Your task to perform on an android device: move an email to a new category in the gmail app Image 0: 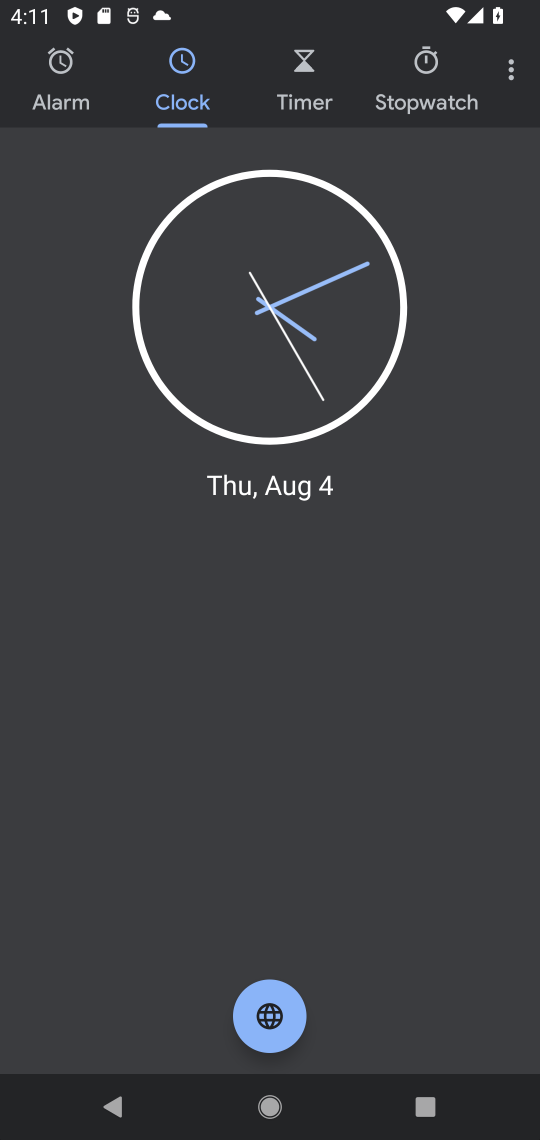
Step 0: press home button
Your task to perform on an android device: move an email to a new category in the gmail app Image 1: 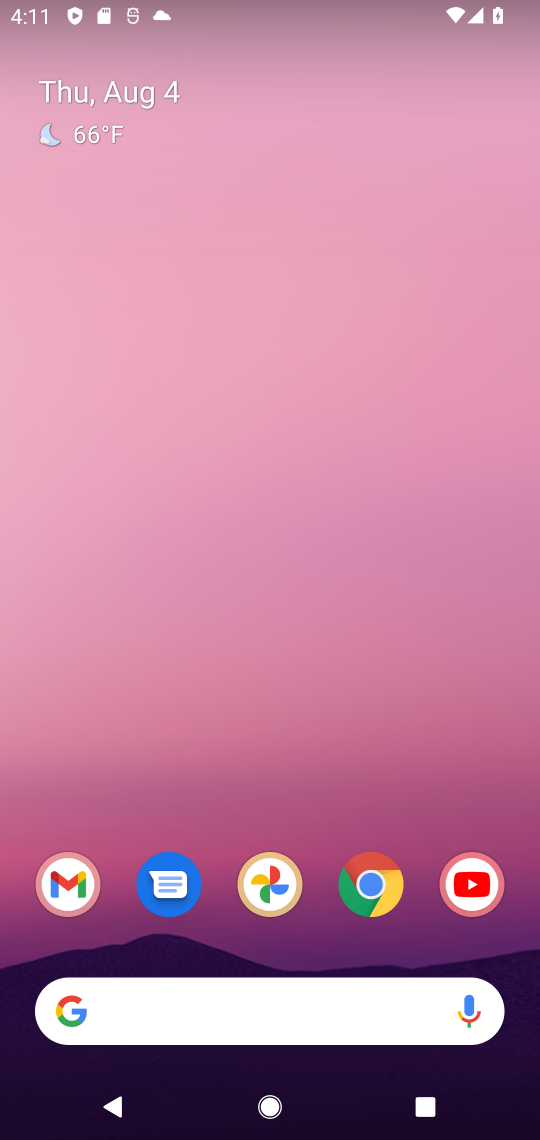
Step 1: drag from (291, 916) to (315, 149)
Your task to perform on an android device: move an email to a new category in the gmail app Image 2: 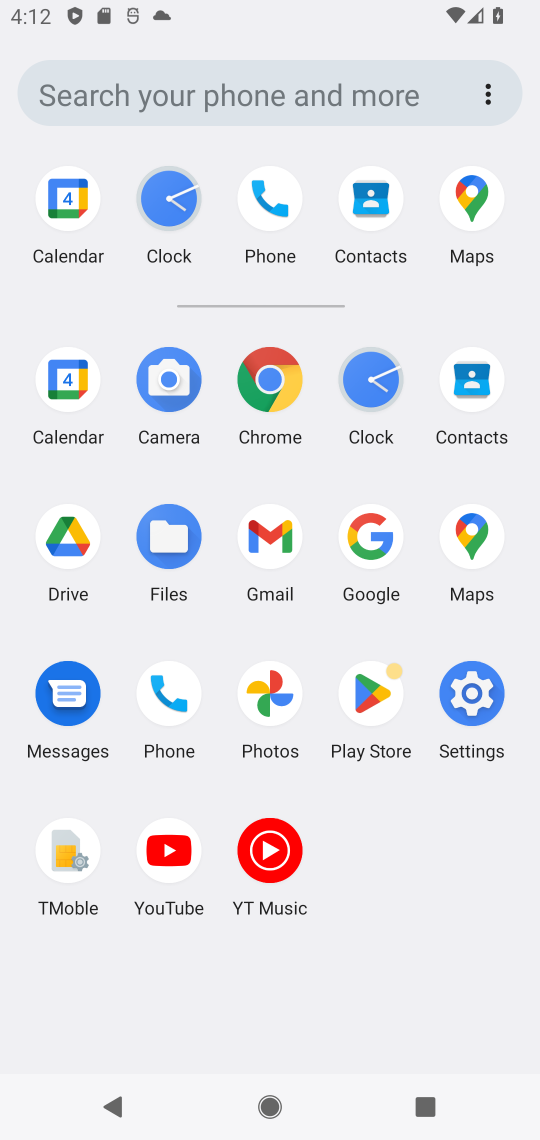
Step 2: click (267, 523)
Your task to perform on an android device: move an email to a new category in the gmail app Image 3: 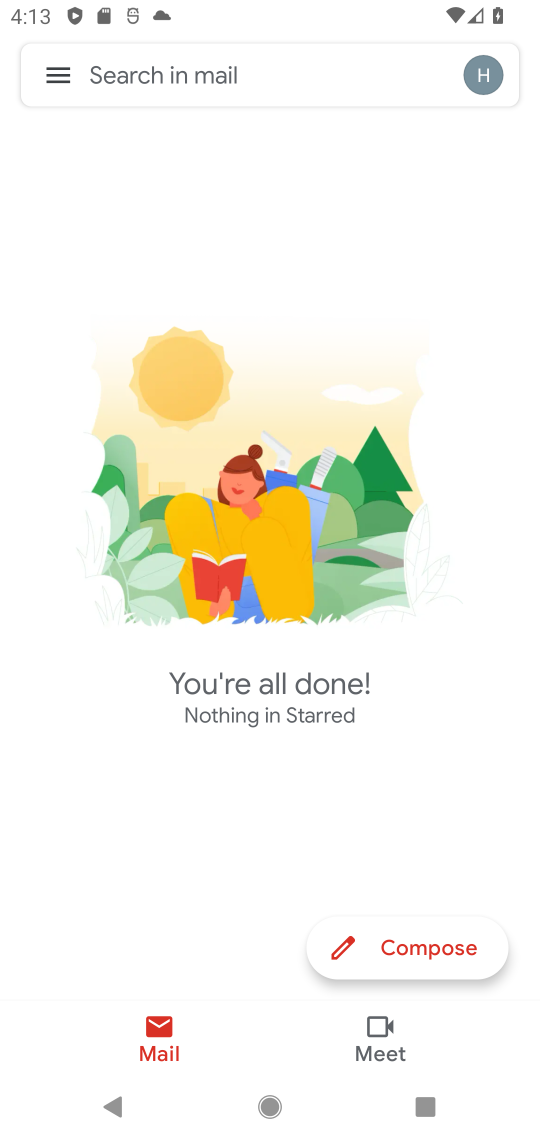
Step 3: click (64, 59)
Your task to perform on an android device: move an email to a new category in the gmail app Image 4: 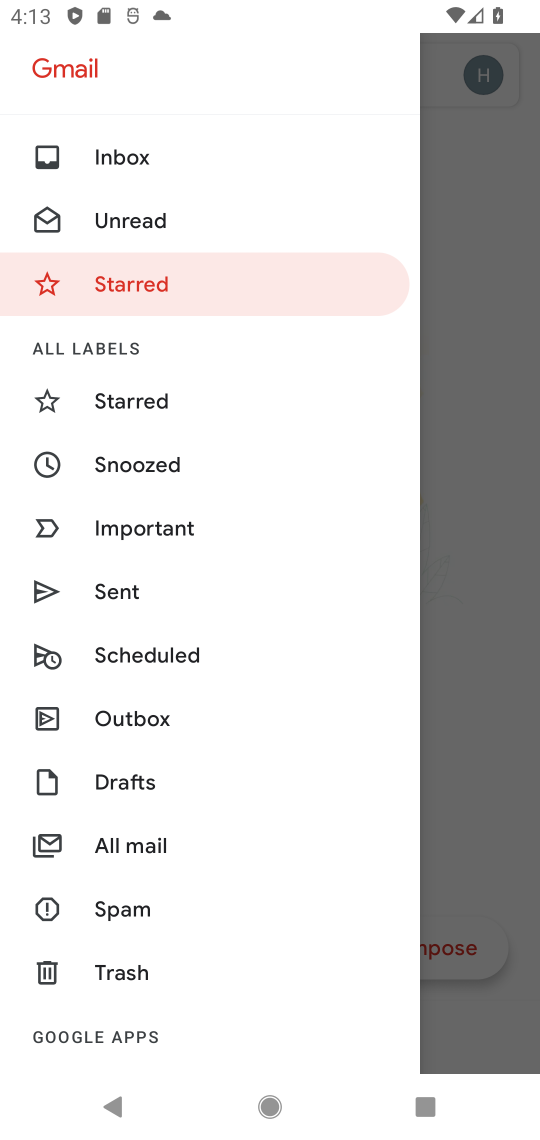
Step 4: click (106, 852)
Your task to perform on an android device: move an email to a new category in the gmail app Image 5: 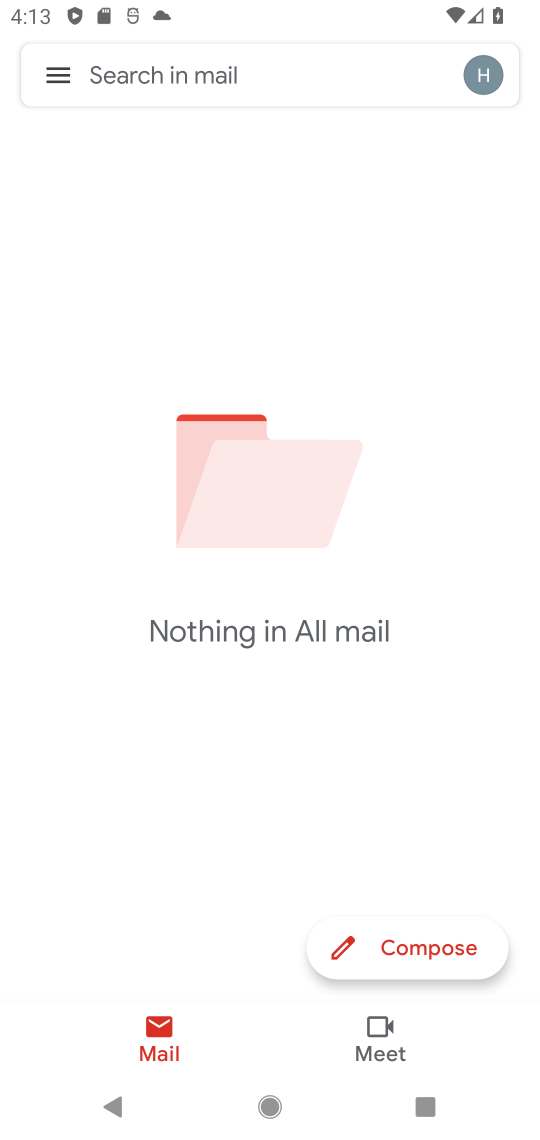
Step 5: task complete